Your task to perform on an android device: Open the calendar and show me this week's events? Image 0: 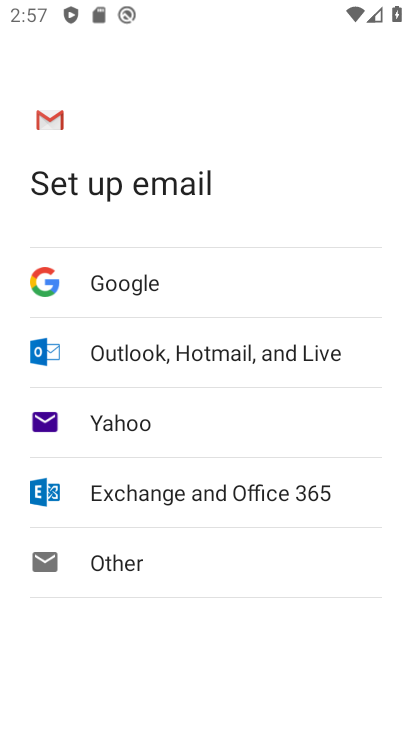
Step 0: press home button
Your task to perform on an android device: Open the calendar and show me this week's events? Image 1: 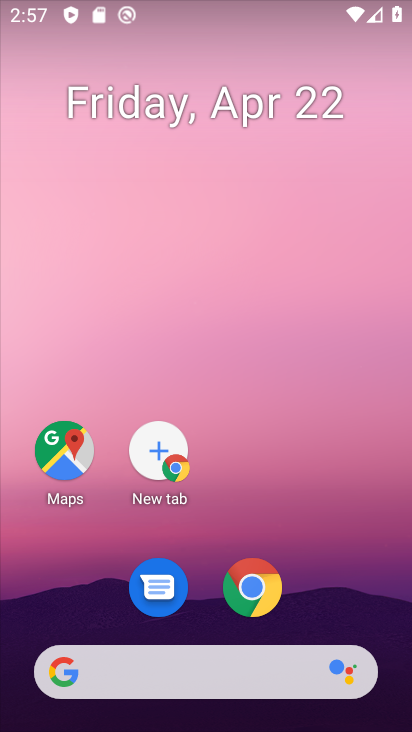
Step 1: click (195, 96)
Your task to perform on an android device: Open the calendar and show me this week's events? Image 2: 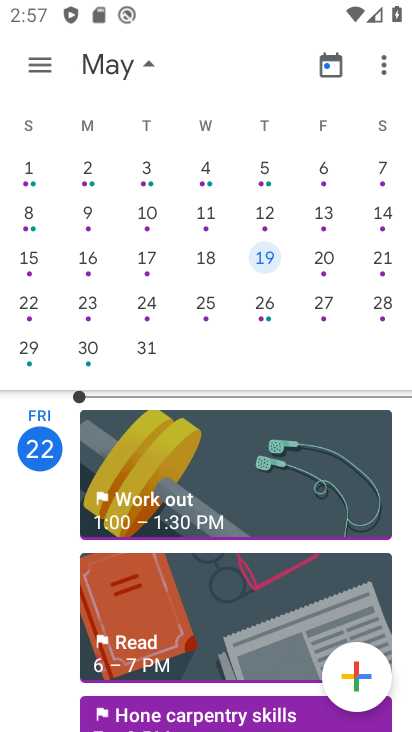
Step 2: task complete